Your task to perform on an android device: Go to CNN.com Image 0: 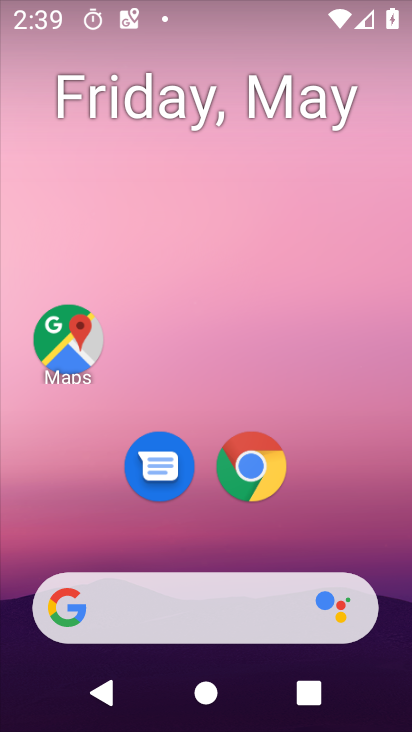
Step 0: drag from (327, 546) to (392, 25)
Your task to perform on an android device: Go to CNN.com Image 1: 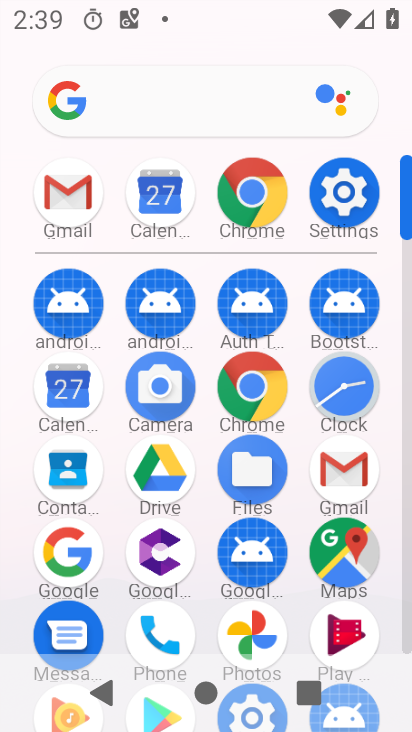
Step 1: click (267, 186)
Your task to perform on an android device: Go to CNN.com Image 2: 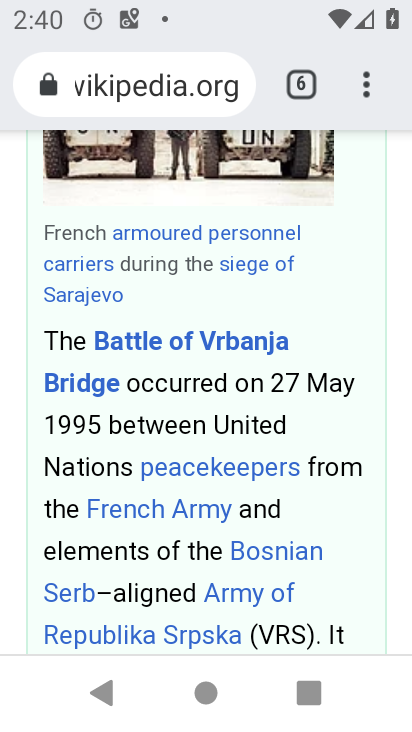
Step 2: click (198, 81)
Your task to perform on an android device: Go to CNN.com Image 3: 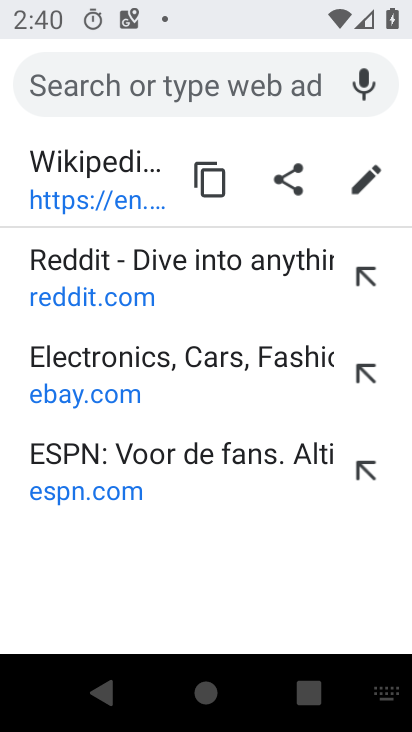
Step 3: type "cnn"
Your task to perform on an android device: Go to CNN.com Image 4: 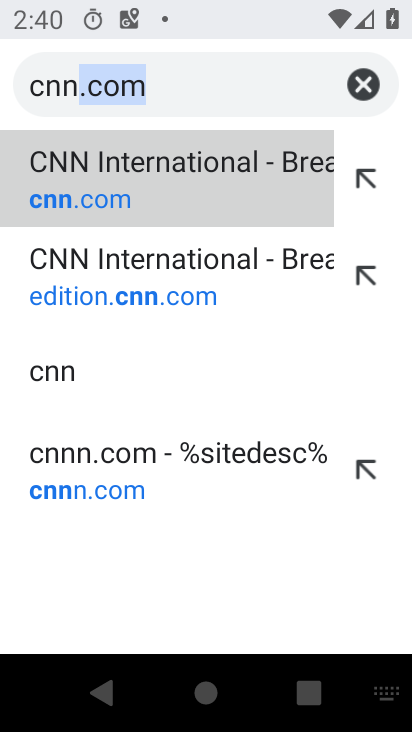
Step 4: click (255, 213)
Your task to perform on an android device: Go to CNN.com Image 5: 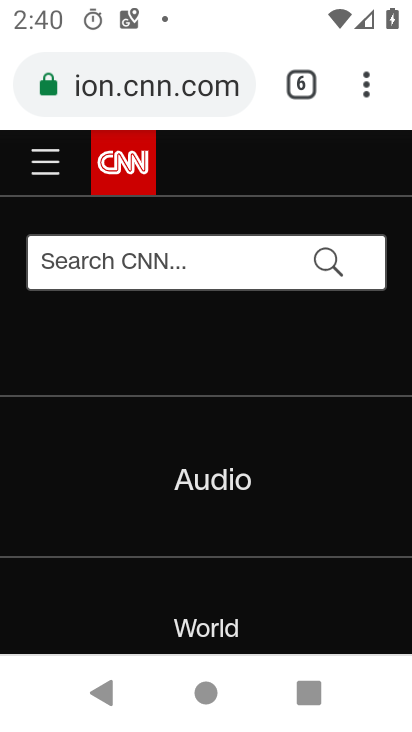
Step 5: task complete